Your task to perform on an android device: change the clock style Image 0: 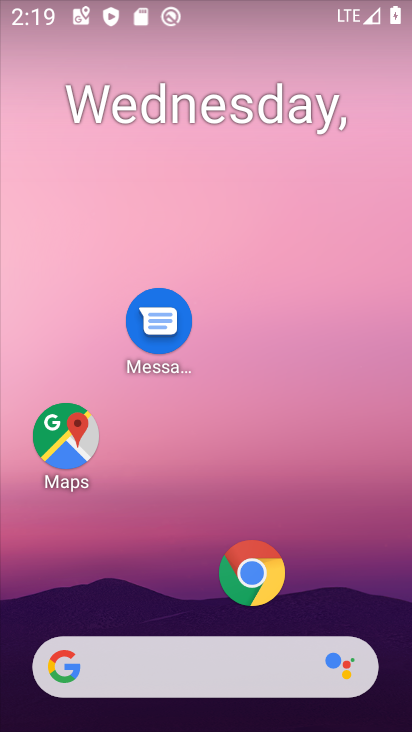
Step 0: drag from (174, 555) to (221, 129)
Your task to perform on an android device: change the clock style Image 1: 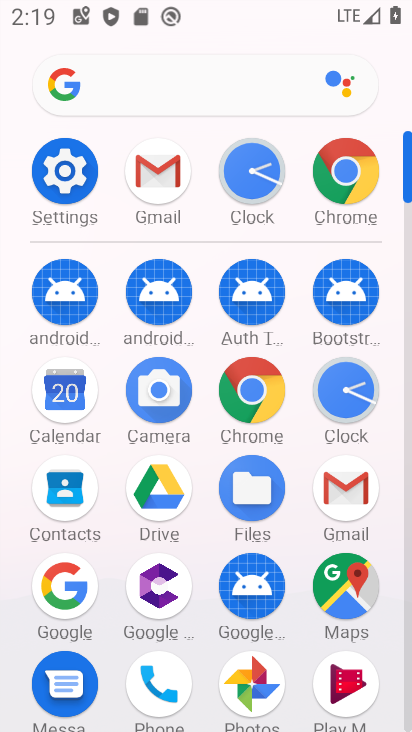
Step 1: click (350, 392)
Your task to perform on an android device: change the clock style Image 2: 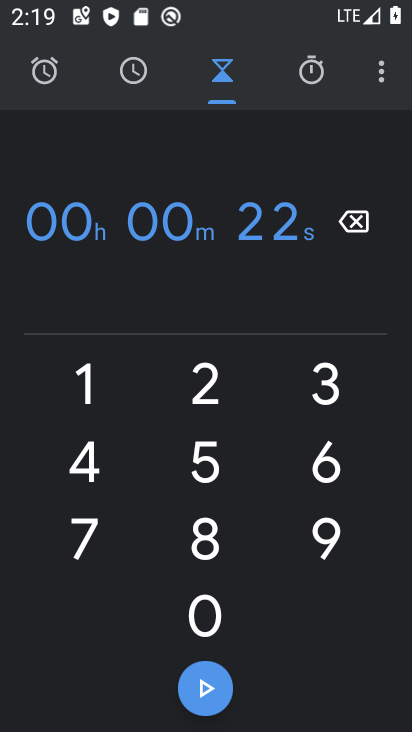
Step 2: click (375, 72)
Your task to perform on an android device: change the clock style Image 3: 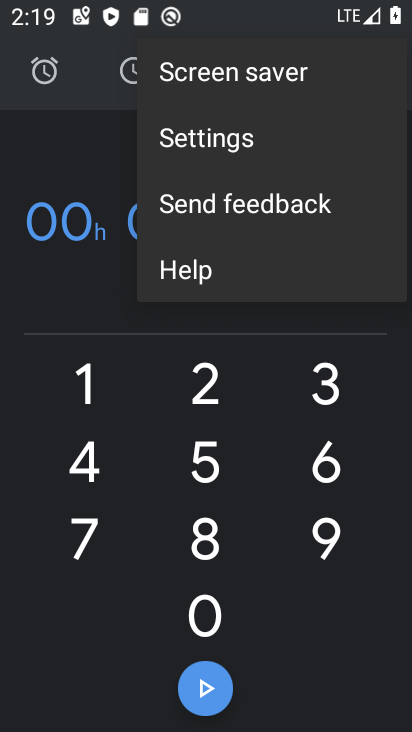
Step 3: click (205, 146)
Your task to perform on an android device: change the clock style Image 4: 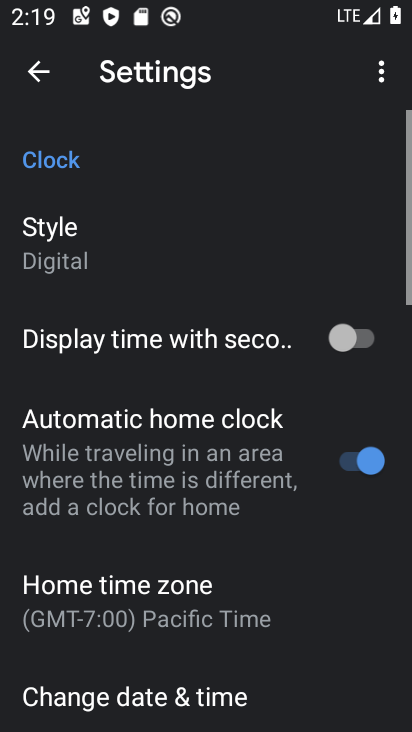
Step 4: click (114, 262)
Your task to perform on an android device: change the clock style Image 5: 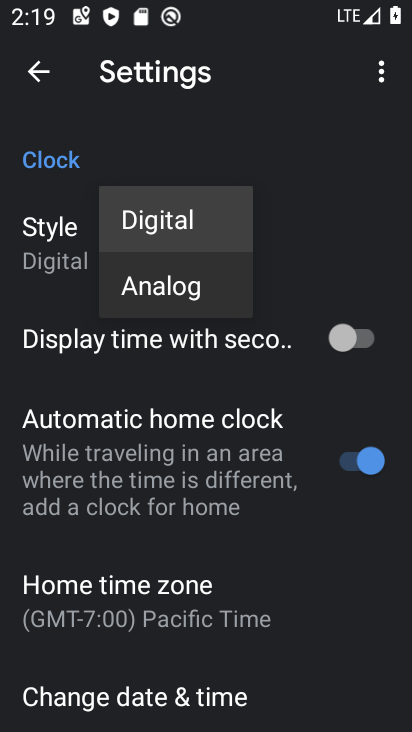
Step 5: click (138, 291)
Your task to perform on an android device: change the clock style Image 6: 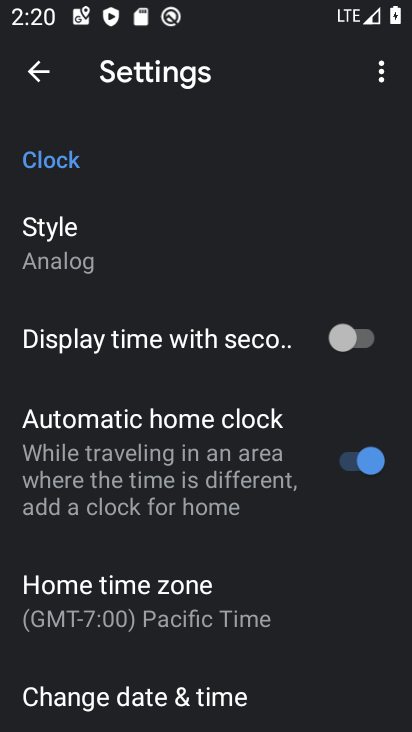
Step 6: task complete